Your task to perform on an android device: Show me productivity apps on the Play Store Image 0: 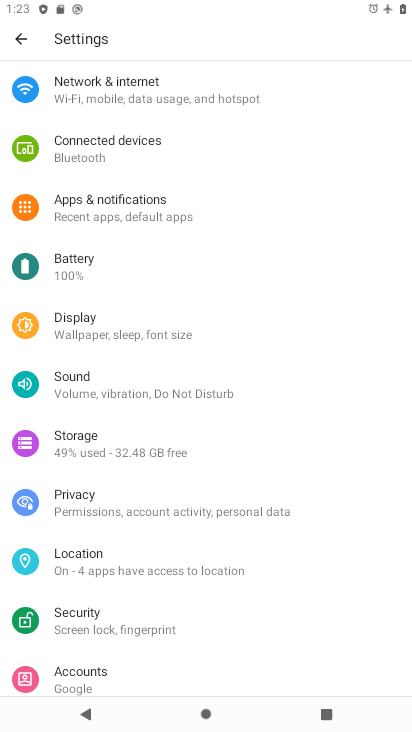
Step 0: press home button
Your task to perform on an android device: Show me productivity apps on the Play Store Image 1: 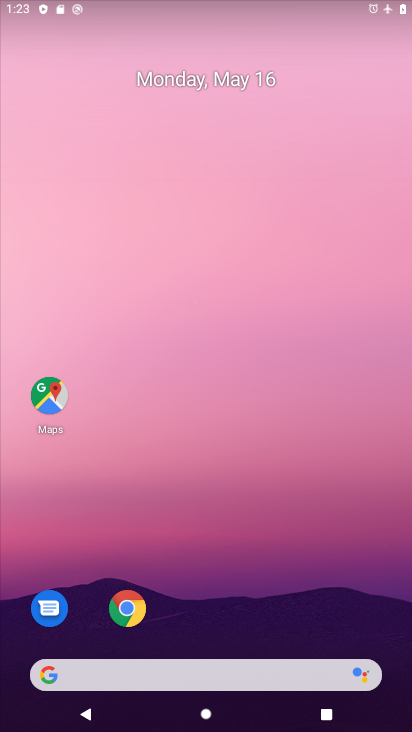
Step 1: drag from (215, 629) to (264, 108)
Your task to perform on an android device: Show me productivity apps on the Play Store Image 2: 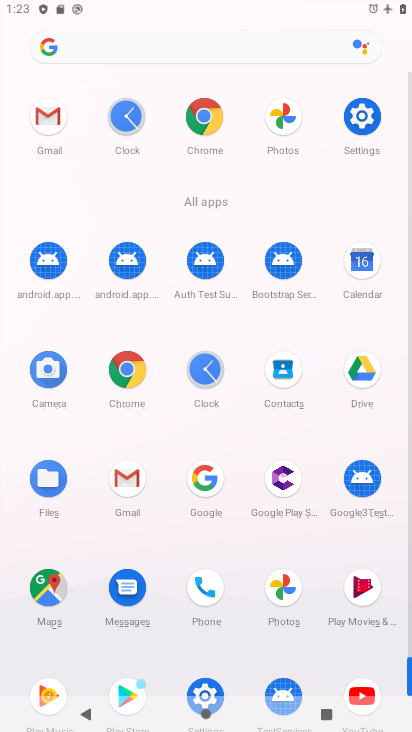
Step 2: click (129, 680)
Your task to perform on an android device: Show me productivity apps on the Play Store Image 3: 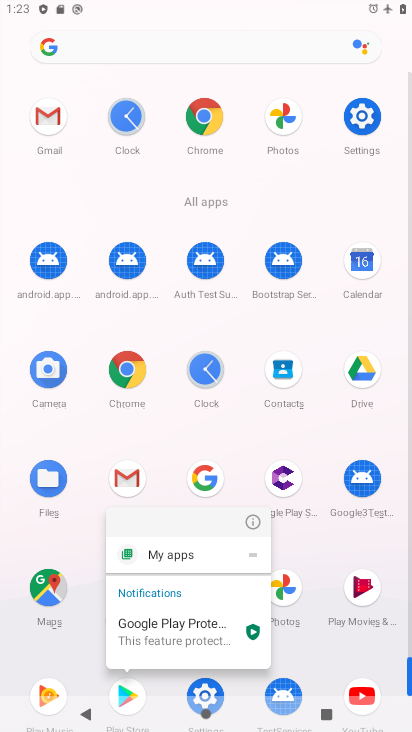
Step 3: click (125, 685)
Your task to perform on an android device: Show me productivity apps on the Play Store Image 4: 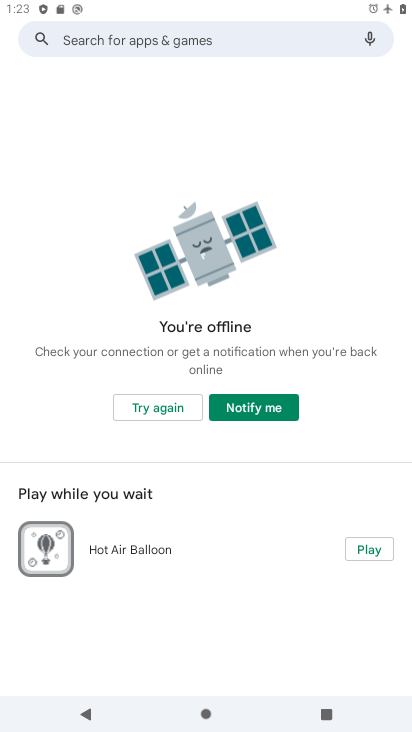
Step 4: task complete